Your task to perform on an android device: What is the recent news? Image 0: 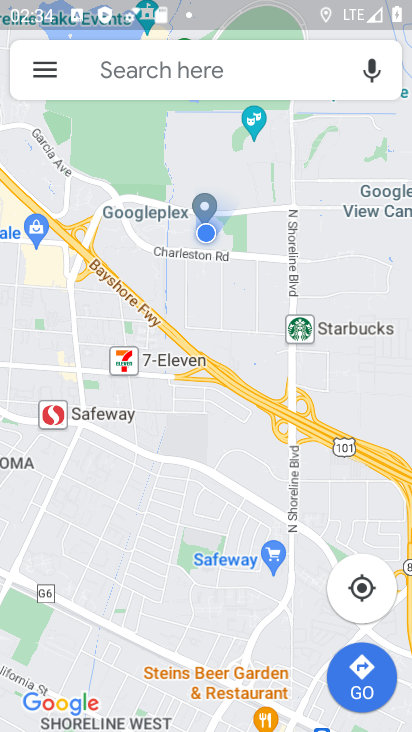
Step 0: press home button
Your task to perform on an android device: What is the recent news? Image 1: 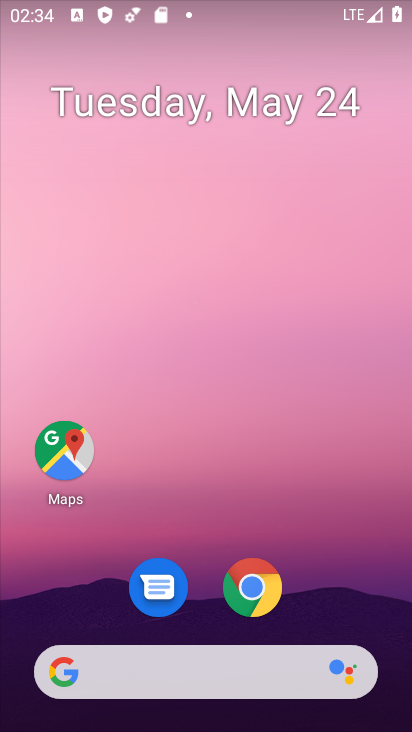
Step 1: click (188, 678)
Your task to perform on an android device: What is the recent news? Image 2: 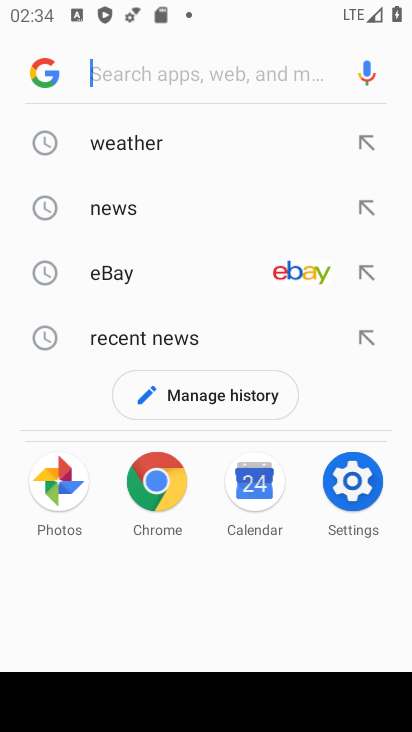
Step 2: type "What is the recent news?"
Your task to perform on an android device: What is the recent news? Image 3: 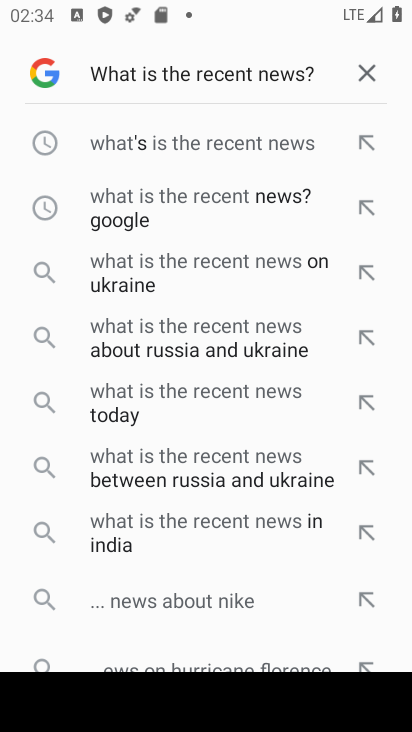
Step 3: click (281, 138)
Your task to perform on an android device: What is the recent news? Image 4: 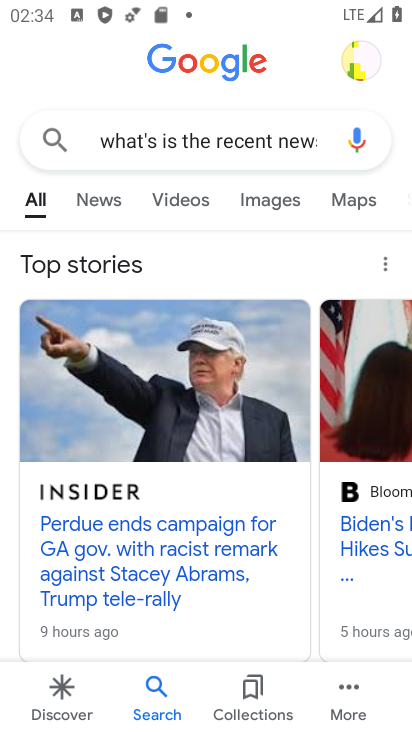
Step 4: task complete